Your task to perform on an android device: find which apps use the phone's location Image 0: 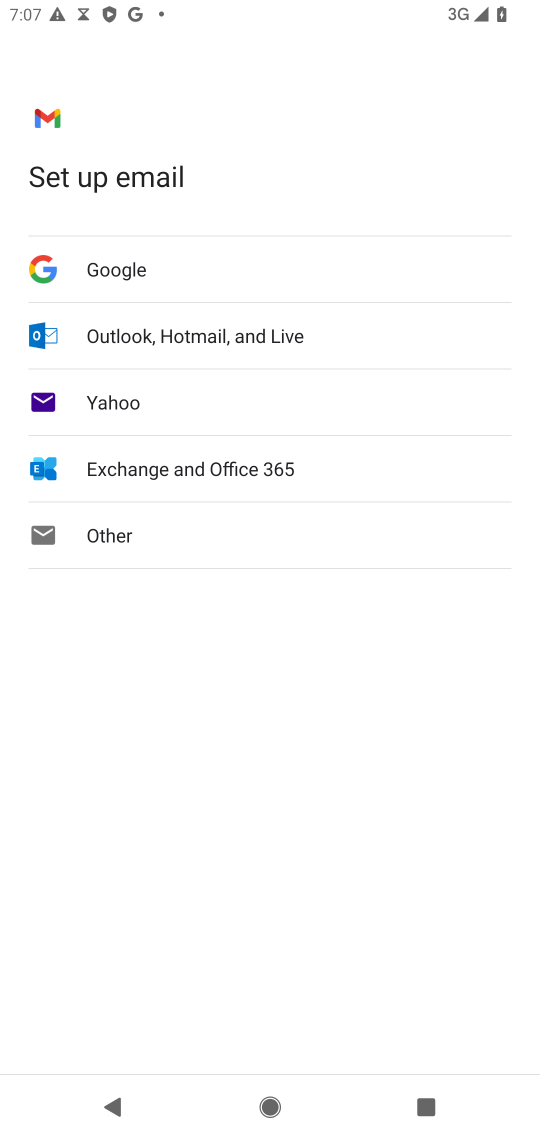
Step 0: press home button
Your task to perform on an android device: find which apps use the phone's location Image 1: 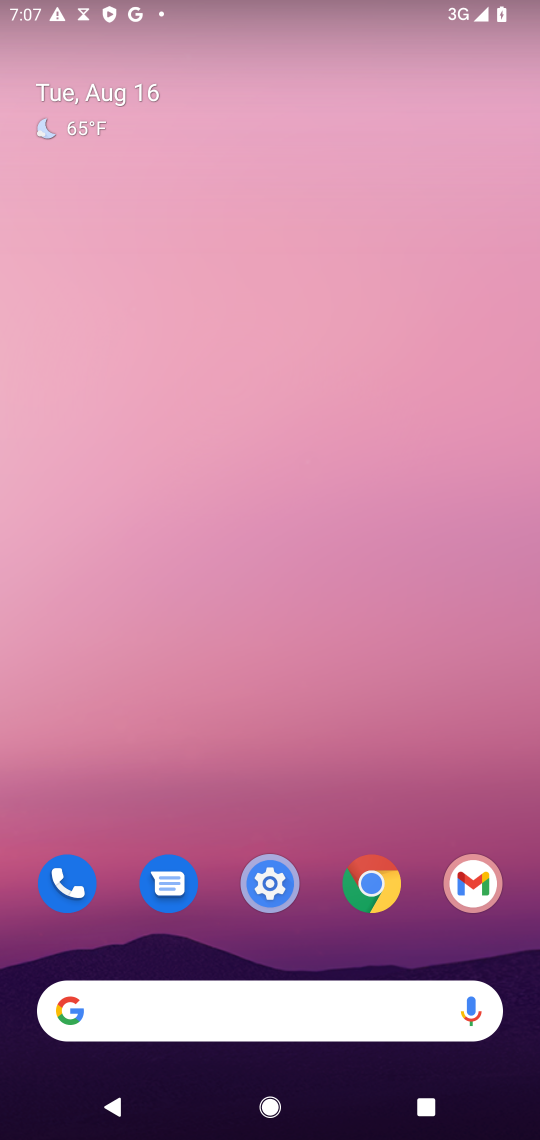
Step 1: click (272, 885)
Your task to perform on an android device: find which apps use the phone's location Image 2: 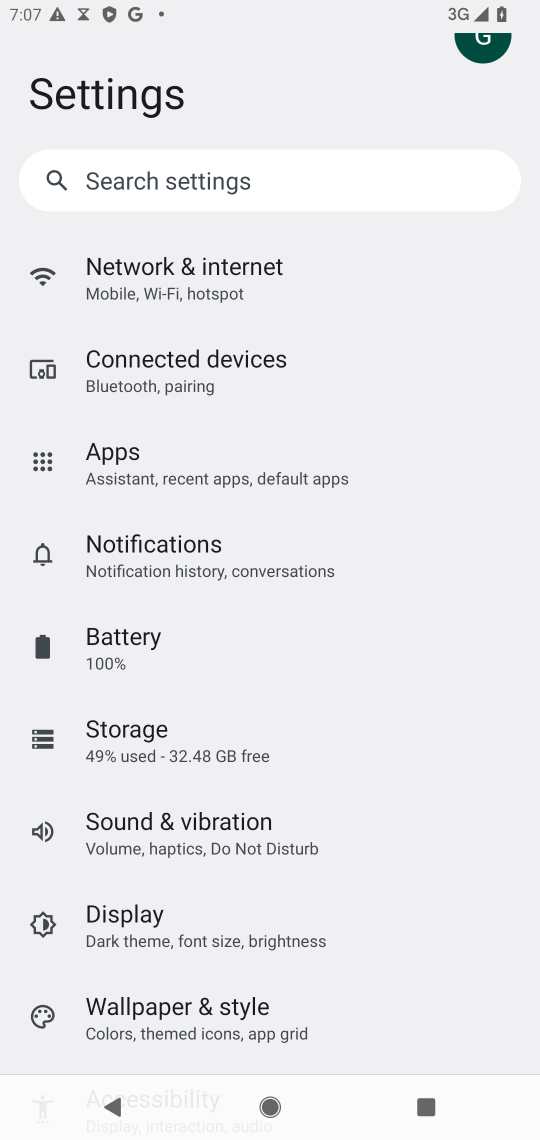
Step 2: drag from (197, 657) to (287, 505)
Your task to perform on an android device: find which apps use the phone's location Image 3: 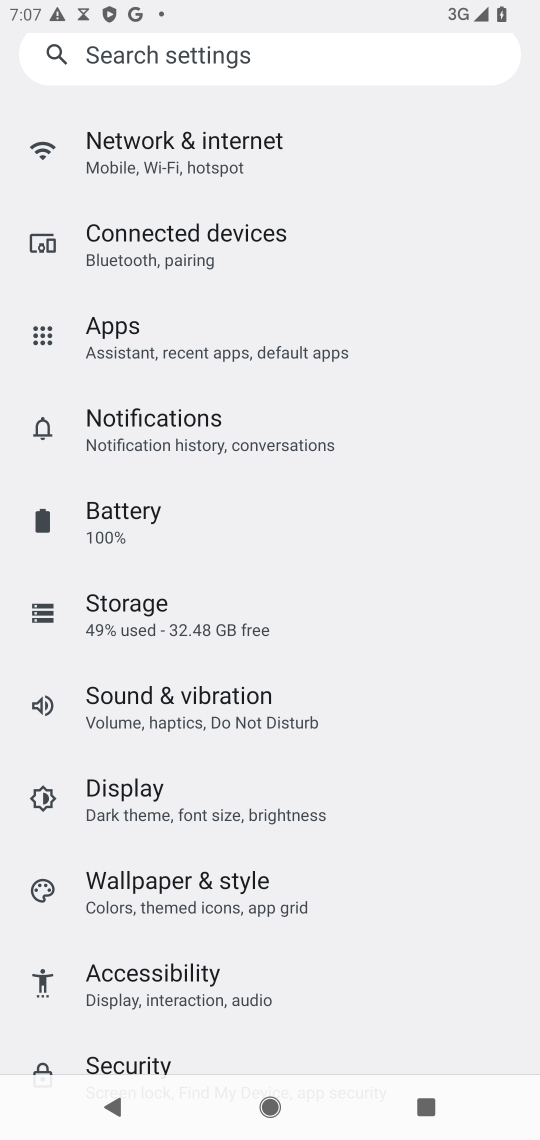
Step 3: drag from (182, 668) to (265, 556)
Your task to perform on an android device: find which apps use the phone's location Image 4: 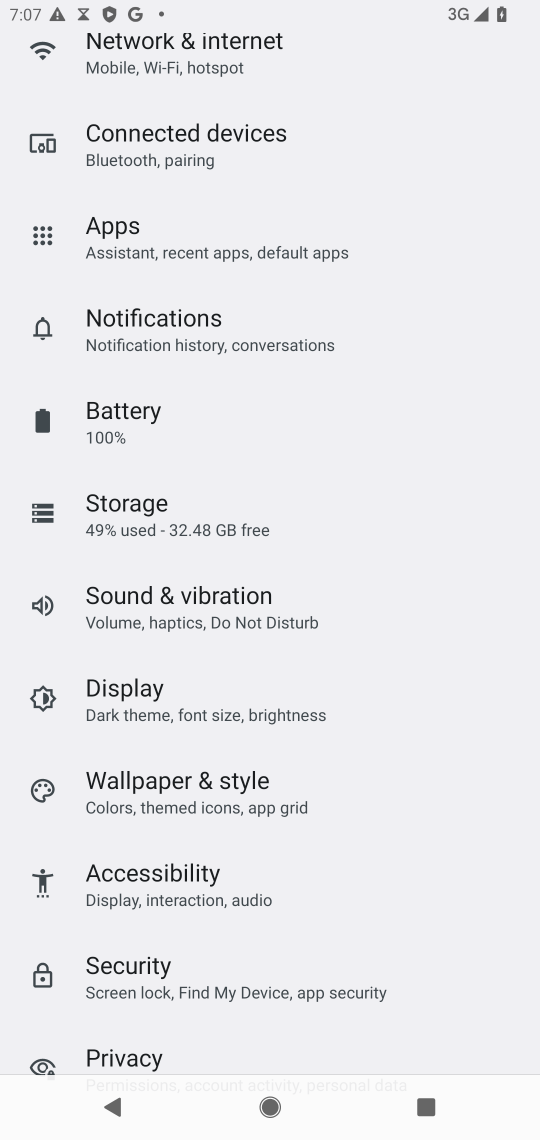
Step 4: drag from (165, 821) to (325, 625)
Your task to perform on an android device: find which apps use the phone's location Image 5: 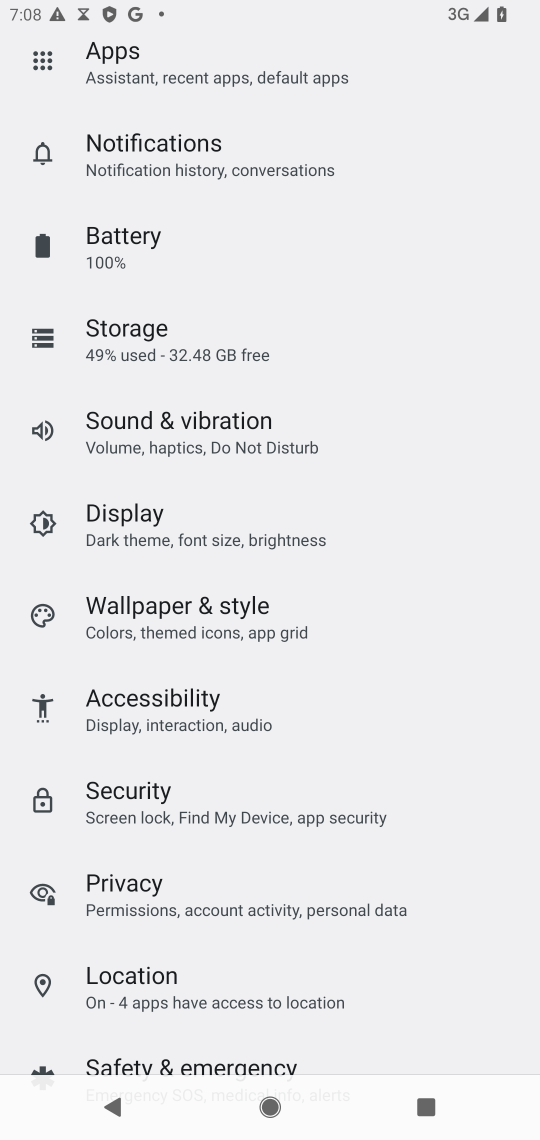
Step 5: click (149, 993)
Your task to perform on an android device: find which apps use the phone's location Image 6: 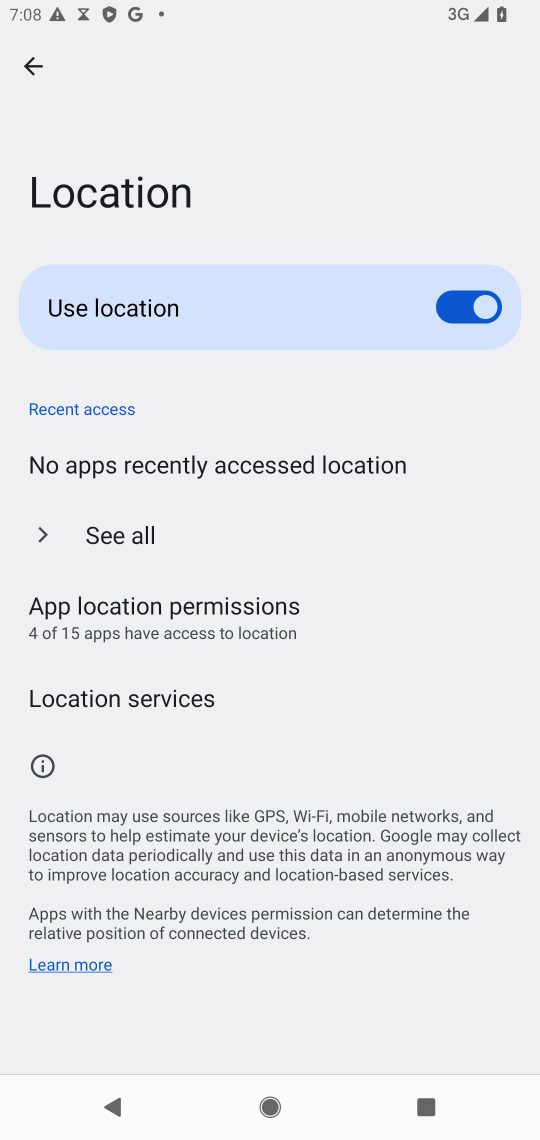
Step 6: click (141, 619)
Your task to perform on an android device: find which apps use the phone's location Image 7: 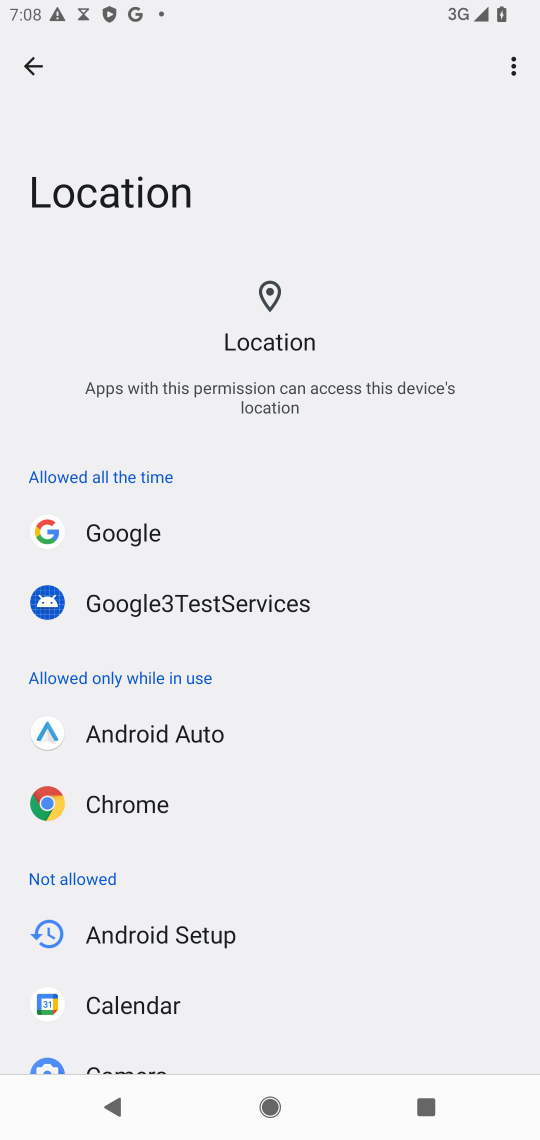
Step 7: drag from (240, 955) to (379, 758)
Your task to perform on an android device: find which apps use the phone's location Image 8: 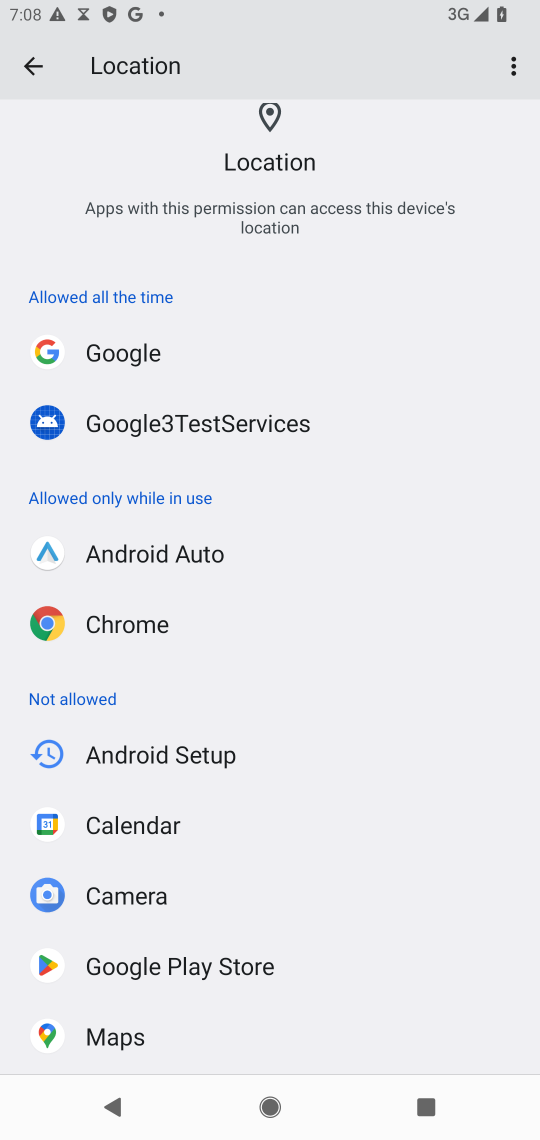
Step 8: drag from (232, 1005) to (395, 826)
Your task to perform on an android device: find which apps use the phone's location Image 9: 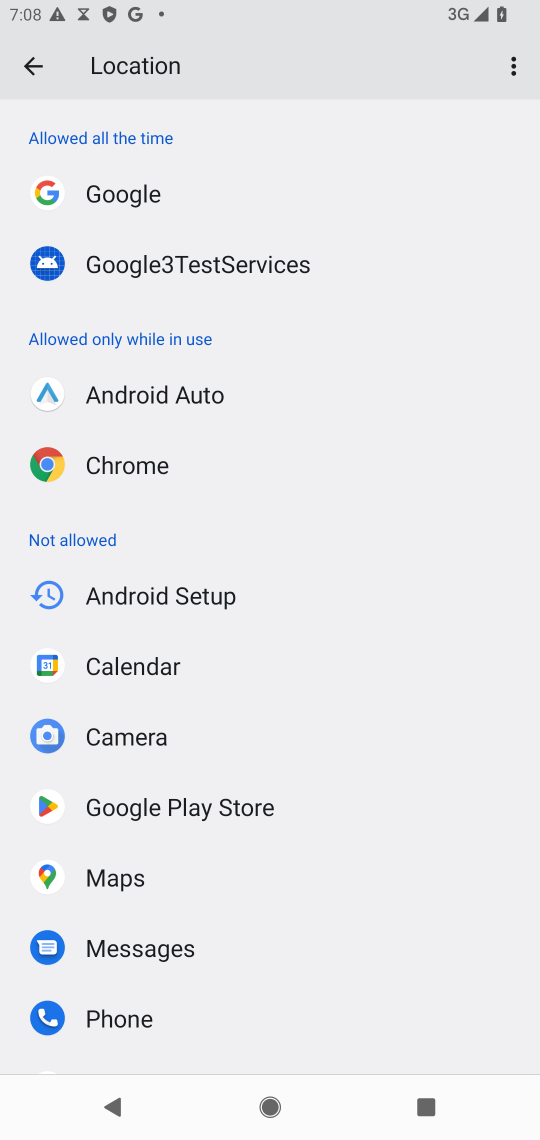
Step 9: click (98, 881)
Your task to perform on an android device: find which apps use the phone's location Image 10: 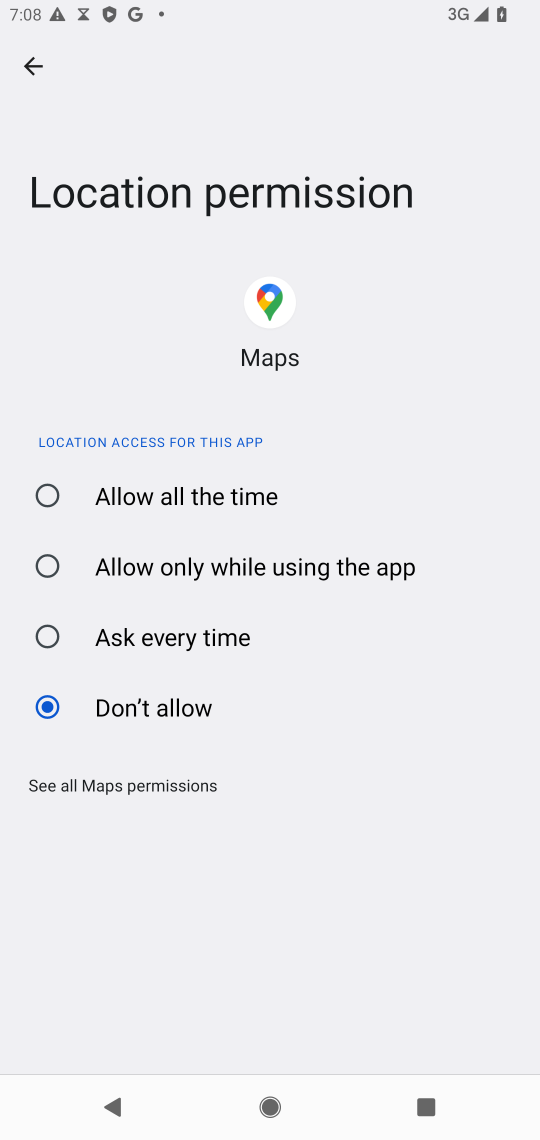
Step 10: task complete